Your task to perform on an android device: toggle priority inbox in the gmail app Image 0: 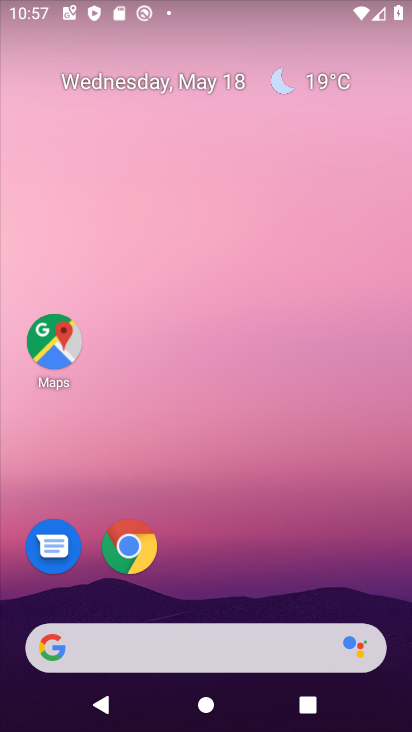
Step 0: drag from (232, 725) to (234, 212)
Your task to perform on an android device: toggle priority inbox in the gmail app Image 1: 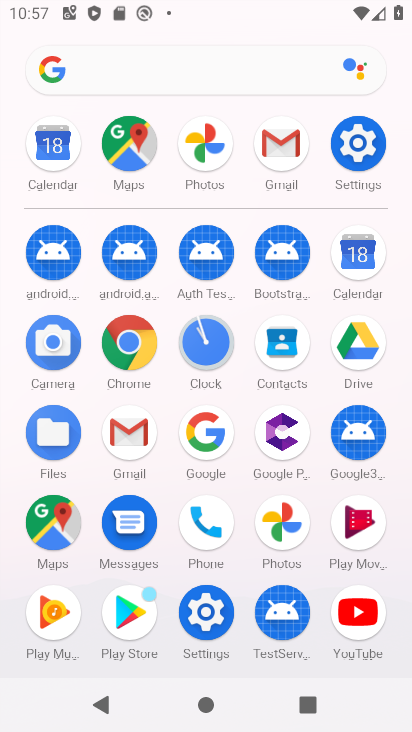
Step 1: click (132, 439)
Your task to perform on an android device: toggle priority inbox in the gmail app Image 2: 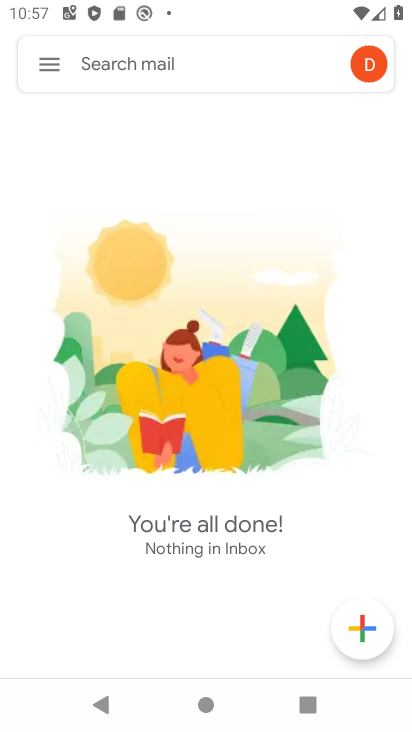
Step 2: click (41, 65)
Your task to perform on an android device: toggle priority inbox in the gmail app Image 3: 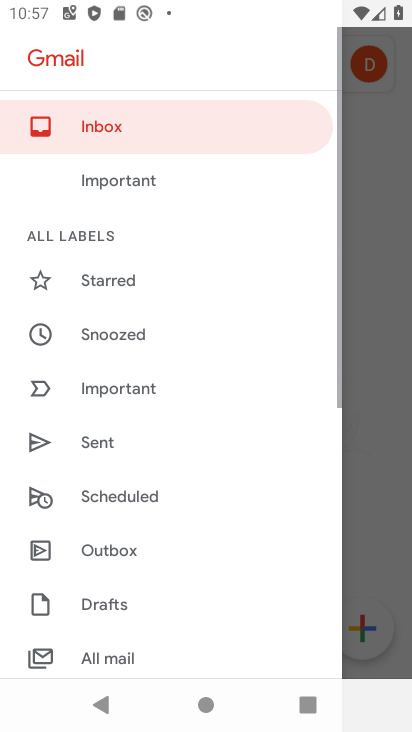
Step 3: drag from (150, 655) to (161, 164)
Your task to perform on an android device: toggle priority inbox in the gmail app Image 4: 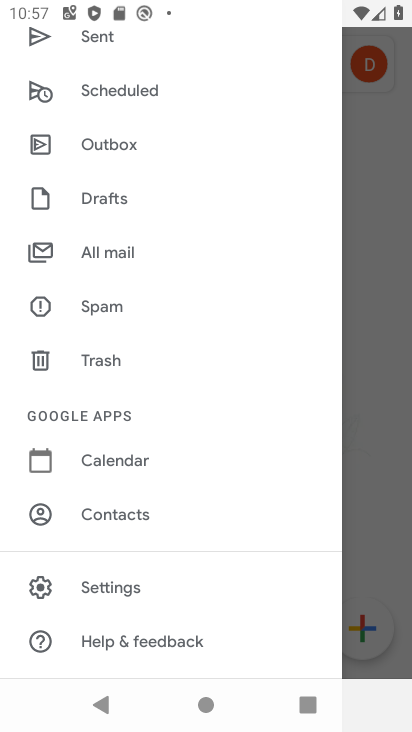
Step 4: click (87, 584)
Your task to perform on an android device: toggle priority inbox in the gmail app Image 5: 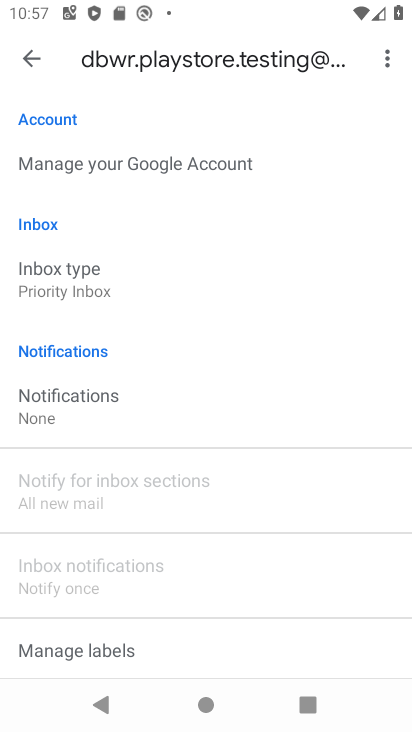
Step 5: click (73, 284)
Your task to perform on an android device: toggle priority inbox in the gmail app Image 6: 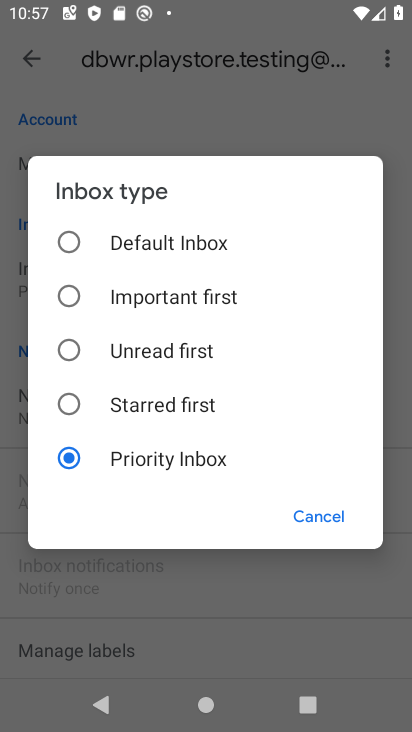
Step 6: click (67, 241)
Your task to perform on an android device: toggle priority inbox in the gmail app Image 7: 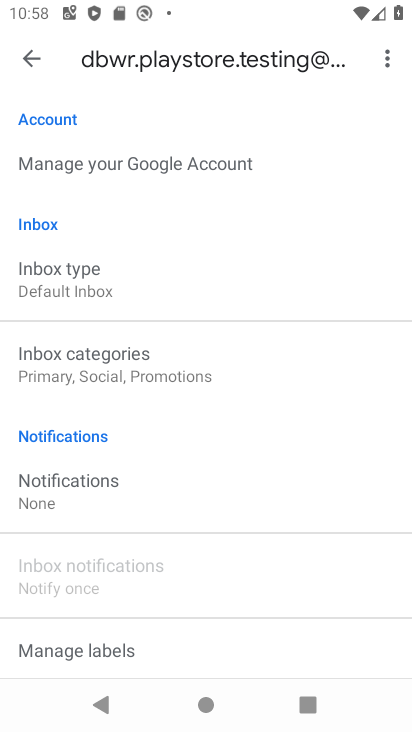
Step 7: task complete